Your task to perform on an android device: turn on airplane mode Image 0: 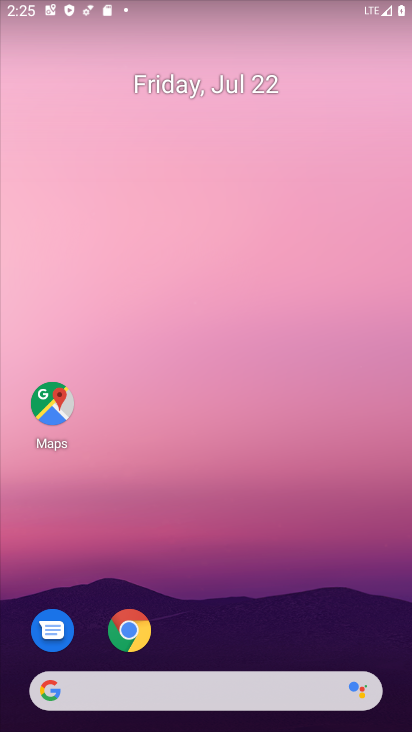
Step 0: drag from (201, 652) to (97, 16)
Your task to perform on an android device: turn on airplane mode Image 1: 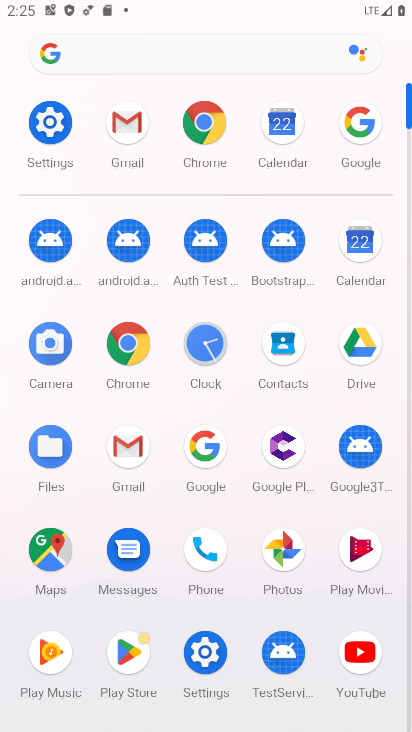
Step 1: click (40, 122)
Your task to perform on an android device: turn on airplane mode Image 2: 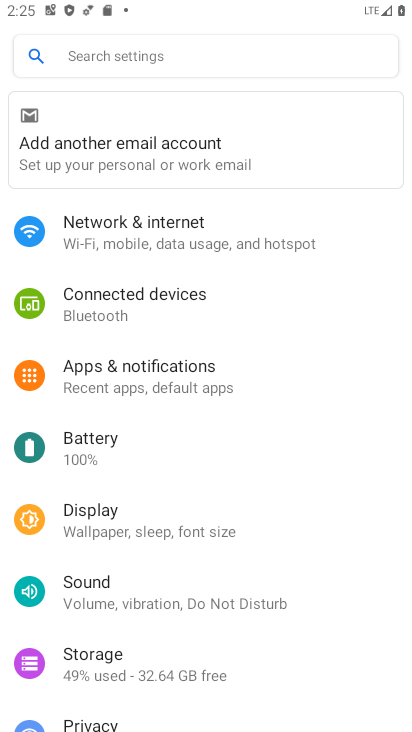
Step 2: click (107, 200)
Your task to perform on an android device: turn on airplane mode Image 3: 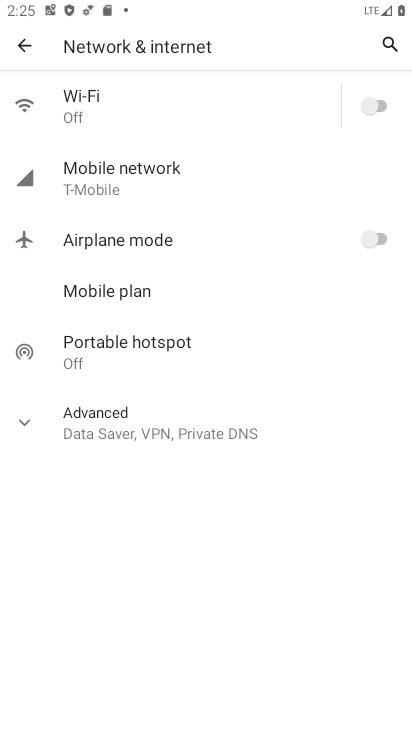
Step 3: click (376, 242)
Your task to perform on an android device: turn on airplane mode Image 4: 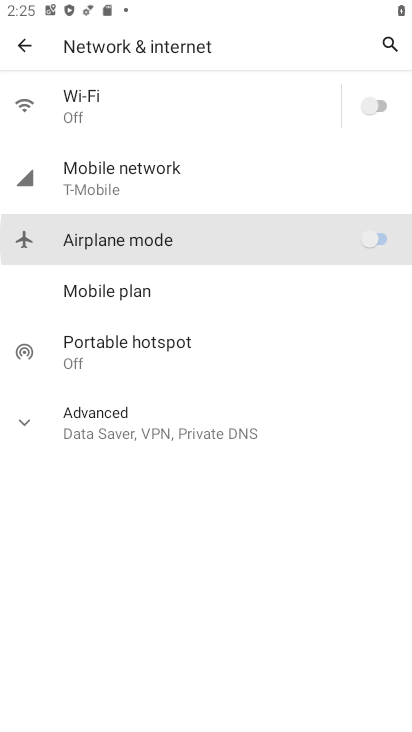
Step 4: task complete